Your task to perform on an android device: When is my next appointment? Image 0: 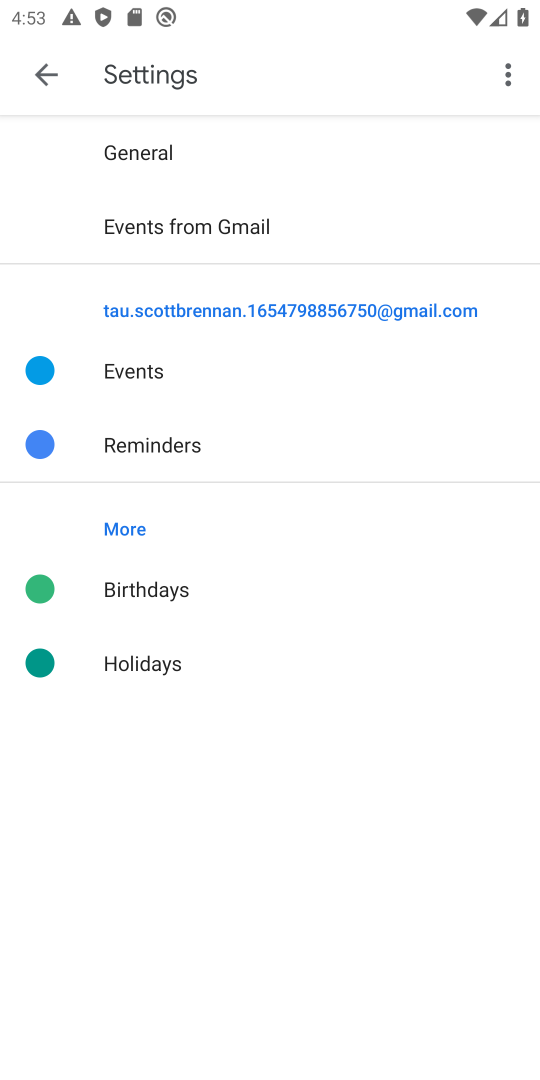
Step 0: press home button
Your task to perform on an android device: When is my next appointment? Image 1: 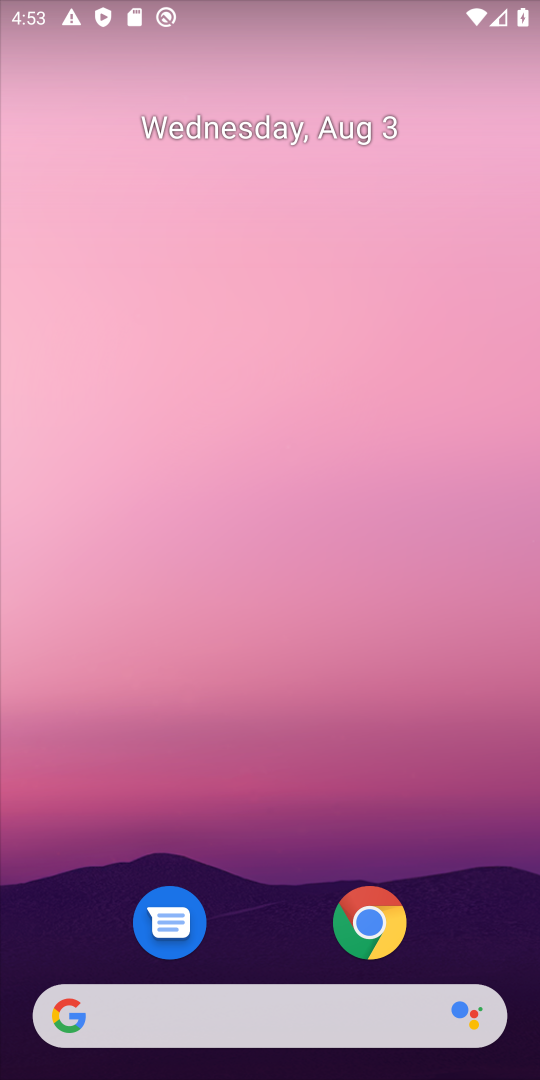
Step 1: drag from (494, 954) to (292, 42)
Your task to perform on an android device: When is my next appointment? Image 2: 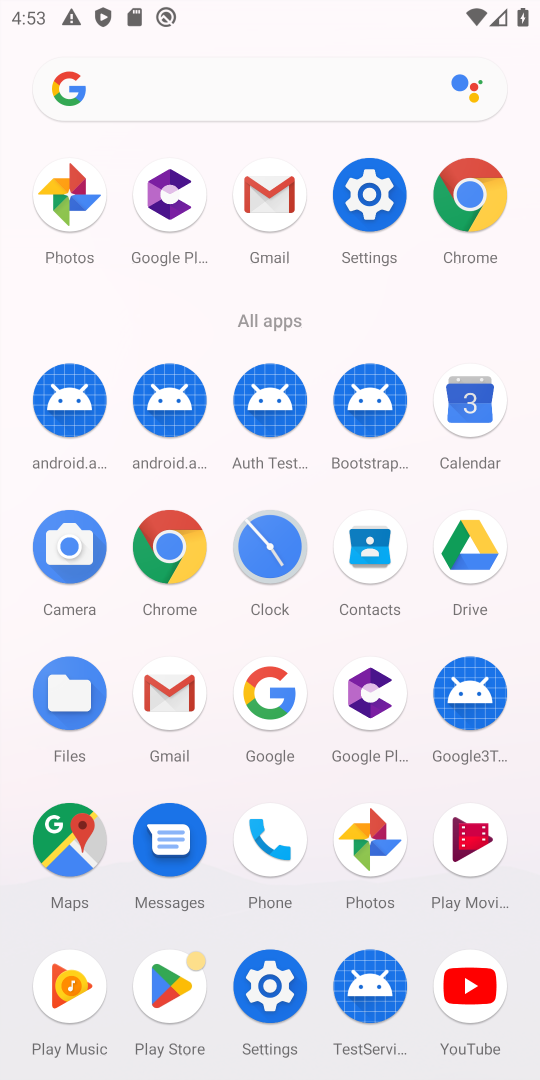
Step 2: click (482, 420)
Your task to perform on an android device: When is my next appointment? Image 3: 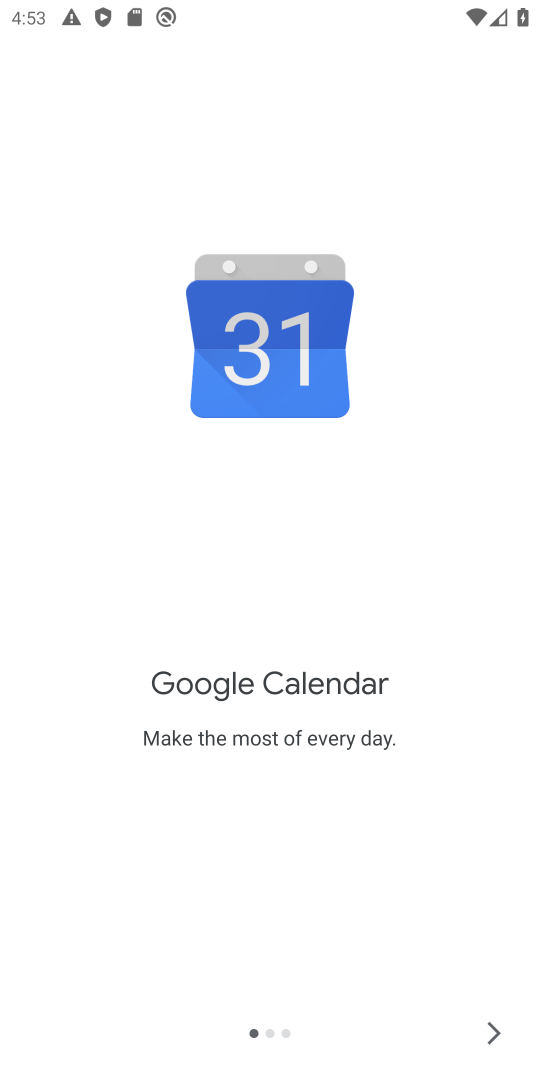
Step 3: click (497, 1033)
Your task to perform on an android device: When is my next appointment? Image 4: 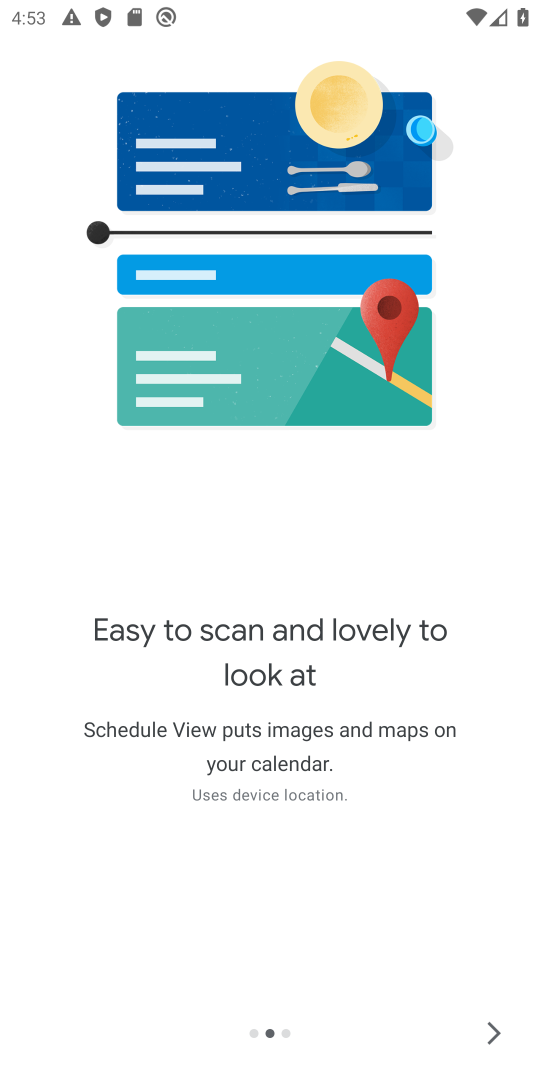
Step 4: click (492, 1033)
Your task to perform on an android device: When is my next appointment? Image 5: 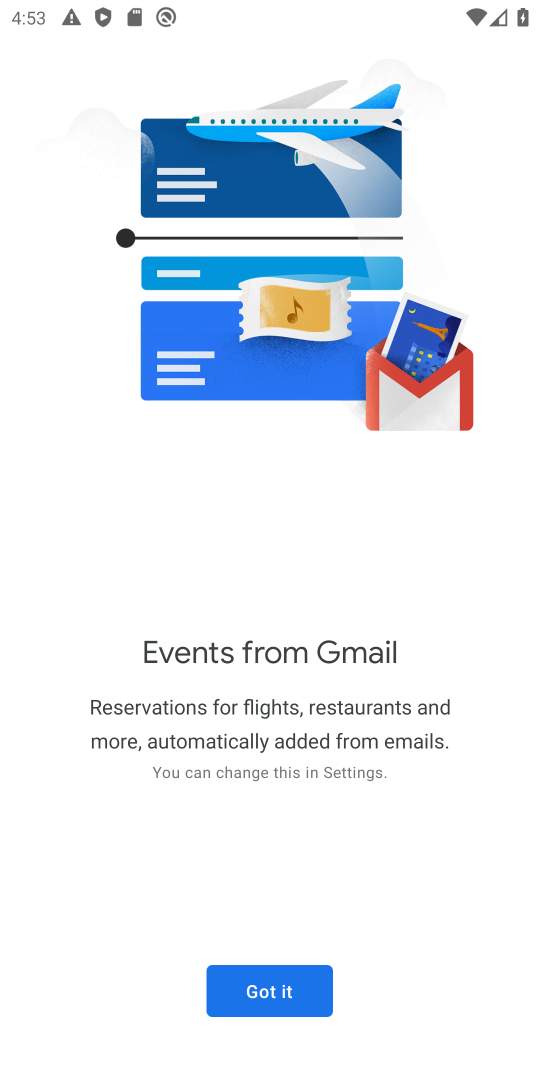
Step 5: click (289, 993)
Your task to perform on an android device: When is my next appointment? Image 6: 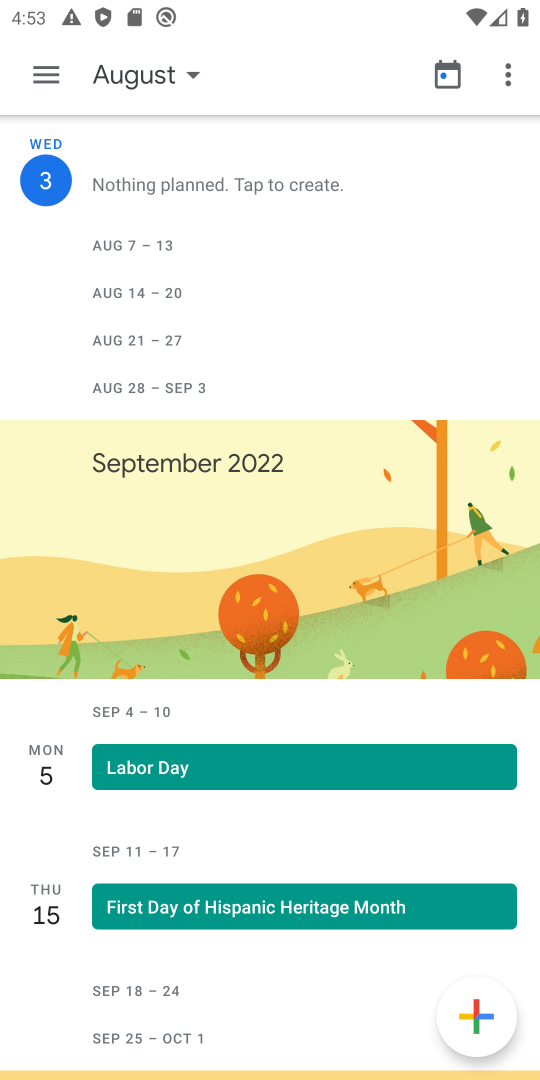
Step 6: task complete